Your task to perform on an android device: set the timer Image 0: 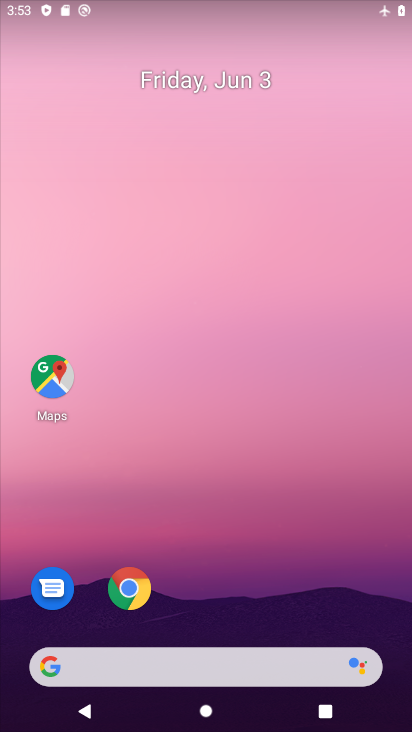
Step 0: drag from (229, 345) to (231, 186)
Your task to perform on an android device: set the timer Image 1: 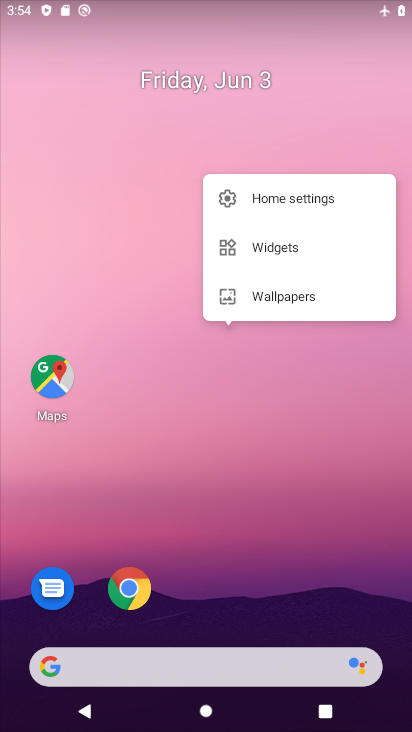
Step 1: drag from (226, 615) to (131, 196)
Your task to perform on an android device: set the timer Image 2: 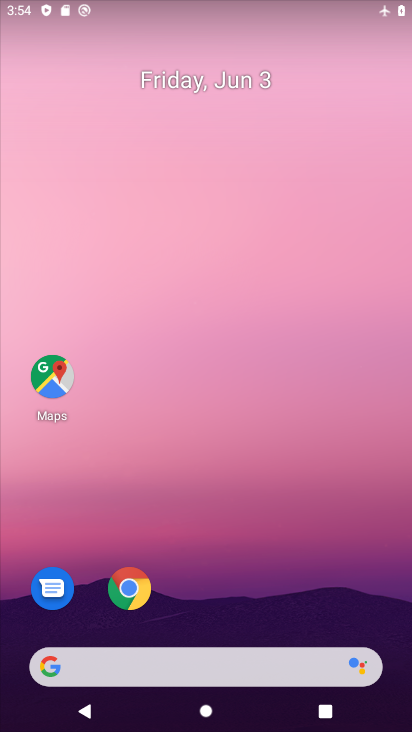
Step 2: press home button
Your task to perform on an android device: set the timer Image 3: 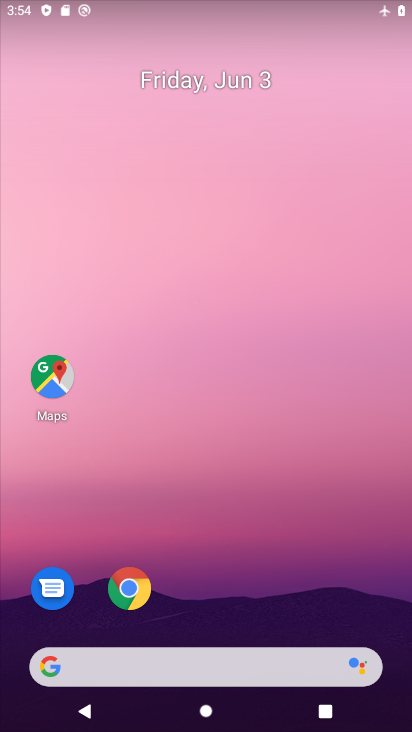
Step 3: drag from (227, 618) to (203, 248)
Your task to perform on an android device: set the timer Image 4: 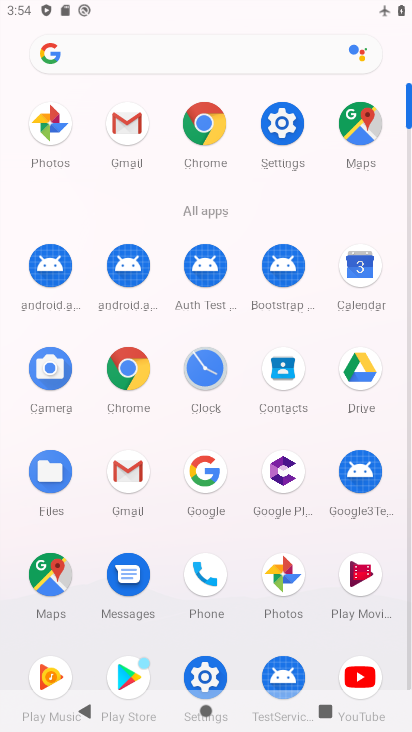
Step 4: click (216, 353)
Your task to perform on an android device: set the timer Image 5: 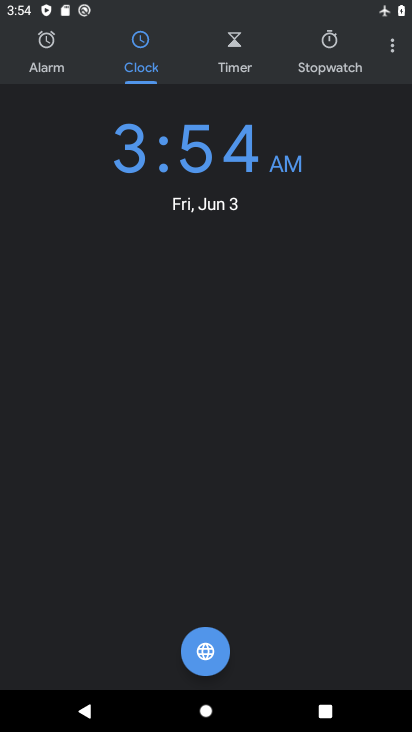
Step 5: click (227, 79)
Your task to perform on an android device: set the timer Image 6: 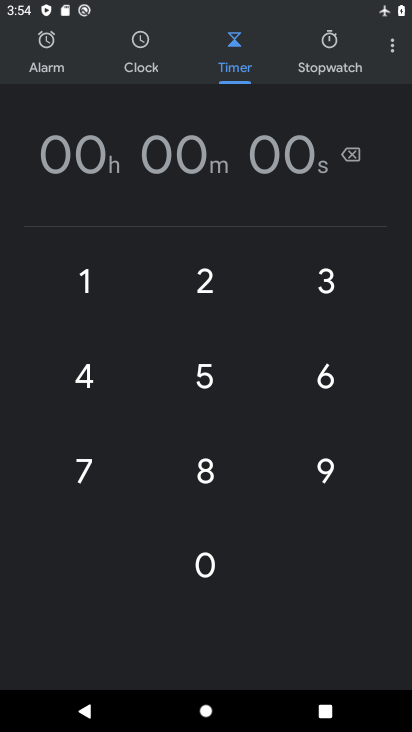
Step 6: type "100000"
Your task to perform on an android device: set the timer Image 7: 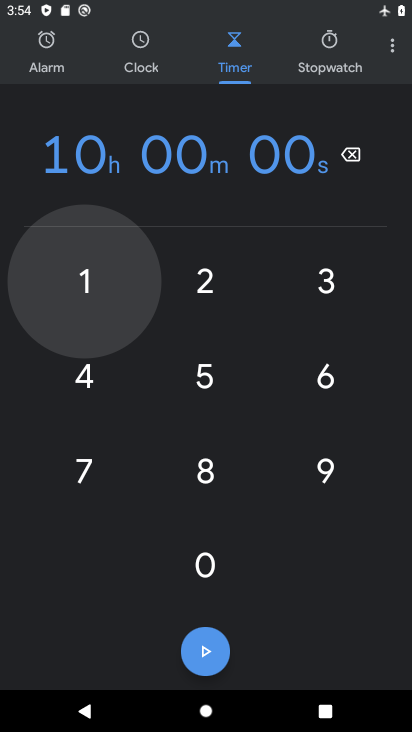
Step 7: click (216, 655)
Your task to perform on an android device: set the timer Image 8: 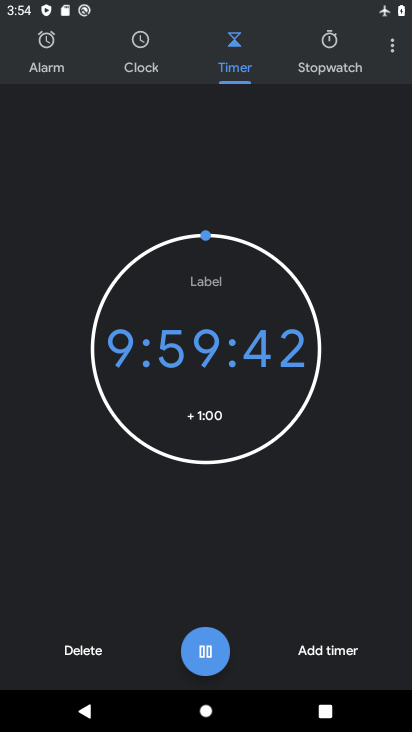
Step 8: task complete